Your task to perform on an android device: When is my next appointment? Image 0: 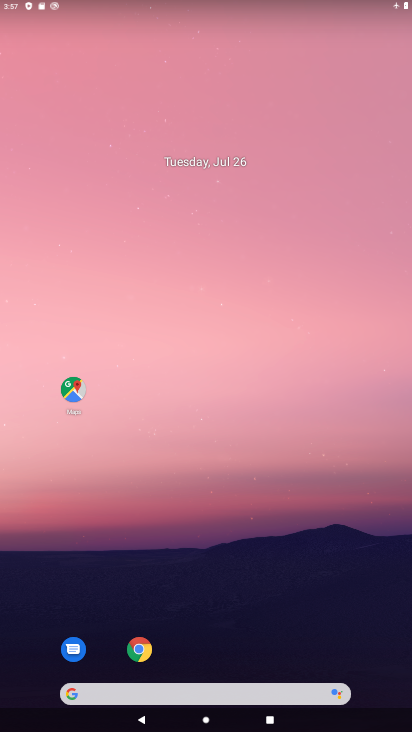
Step 0: drag from (202, 585) to (202, 192)
Your task to perform on an android device: When is my next appointment? Image 1: 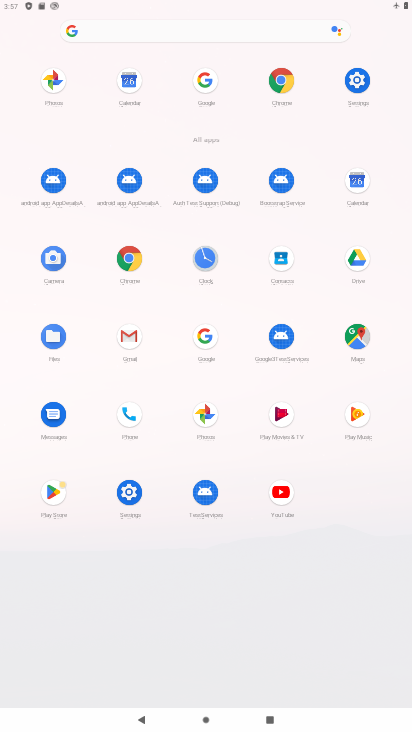
Step 1: click (350, 203)
Your task to perform on an android device: When is my next appointment? Image 2: 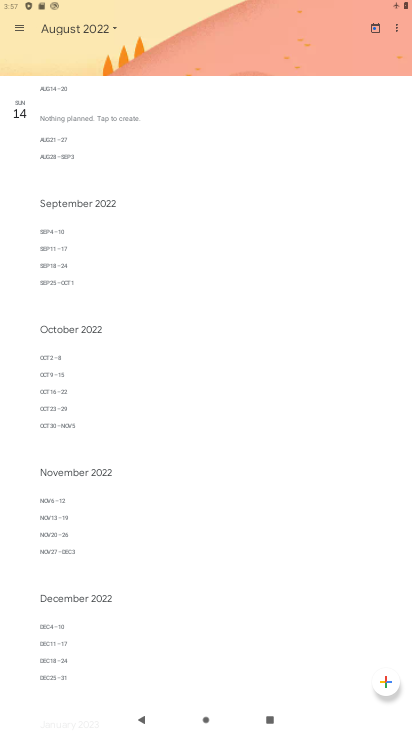
Step 2: click (97, 31)
Your task to perform on an android device: When is my next appointment? Image 3: 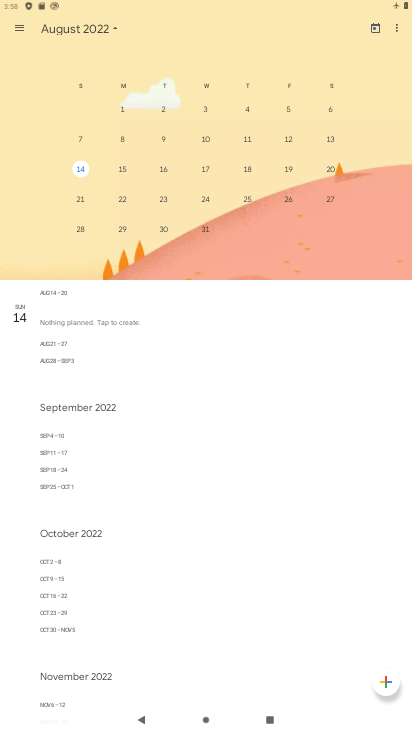
Step 3: drag from (103, 160) to (397, 163)
Your task to perform on an android device: When is my next appointment? Image 4: 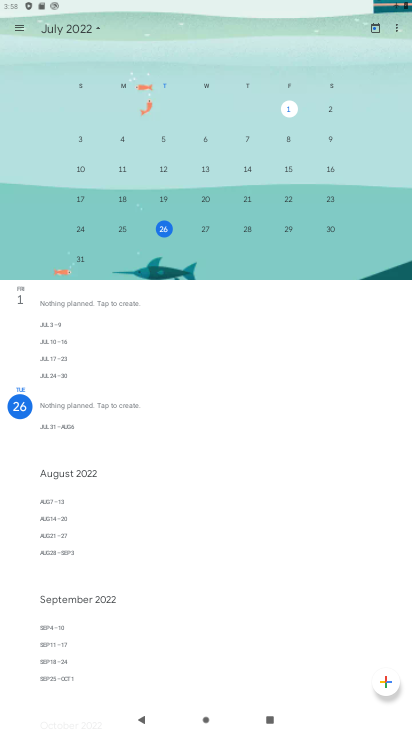
Step 4: click (198, 221)
Your task to perform on an android device: When is my next appointment? Image 5: 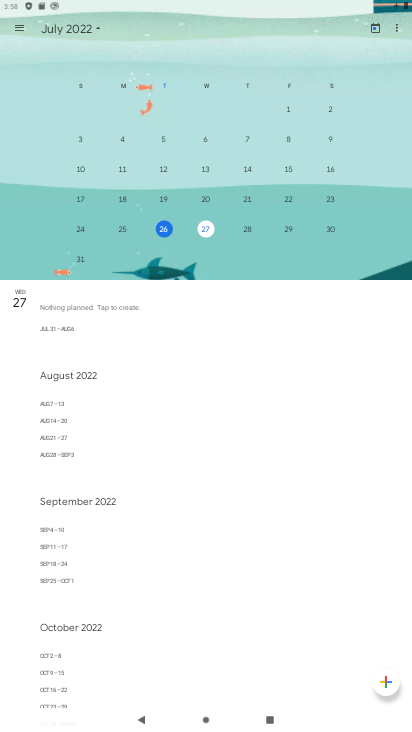
Step 5: click (241, 233)
Your task to perform on an android device: When is my next appointment? Image 6: 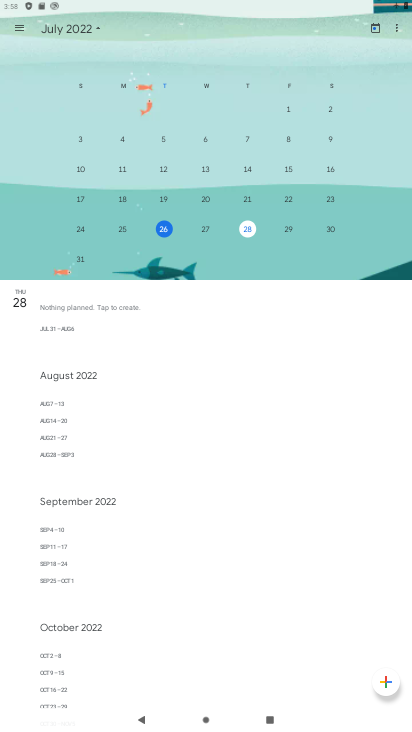
Step 6: click (295, 235)
Your task to perform on an android device: When is my next appointment? Image 7: 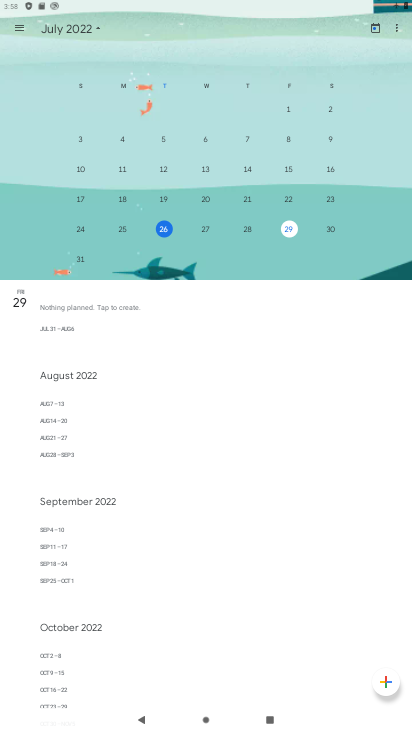
Step 7: task complete